Your task to perform on an android device: open the mobile data screen to see how much data has been used Image 0: 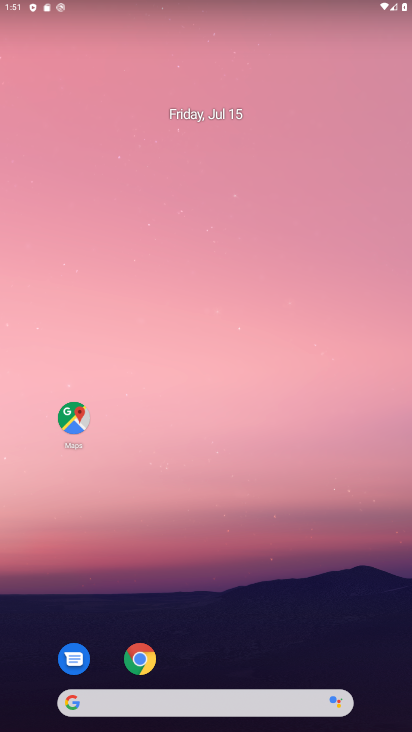
Step 0: drag from (186, 689) to (192, 244)
Your task to perform on an android device: open the mobile data screen to see how much data has been used Image 1: 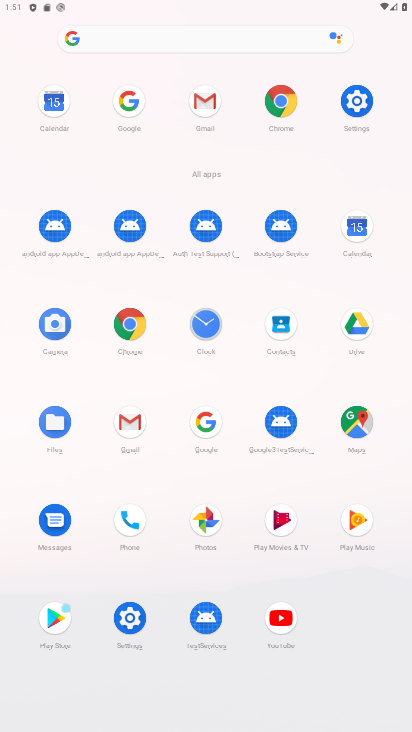
Step 1: click (348, 93)
Your task to perform on an android device: open the mobile data screen to see how much data has been used Image 2: 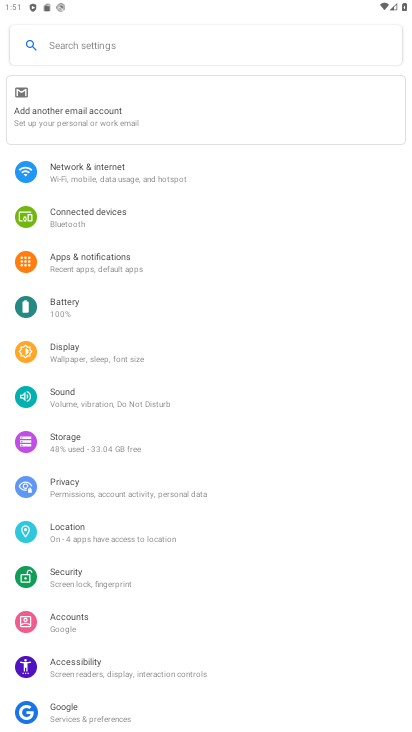
Step 2: click (109, 176)
Your task to perform on an android device: open the mobile data screen to see how much data has been used Image 3: 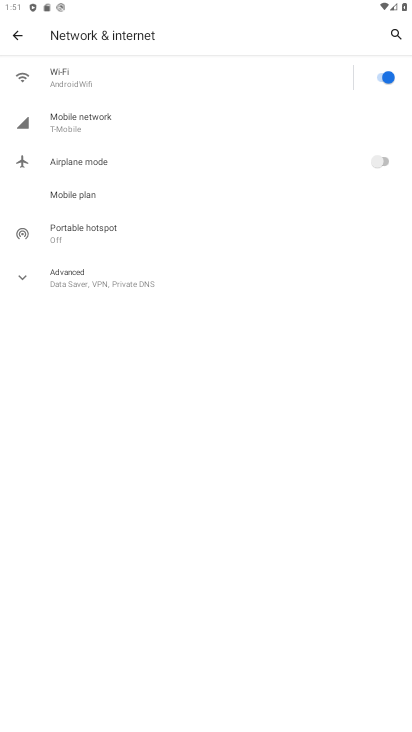
Step 3: click (93, 127)
Your task to perform on an android device: open the mobile data screen to see how much data has been used Image 4: 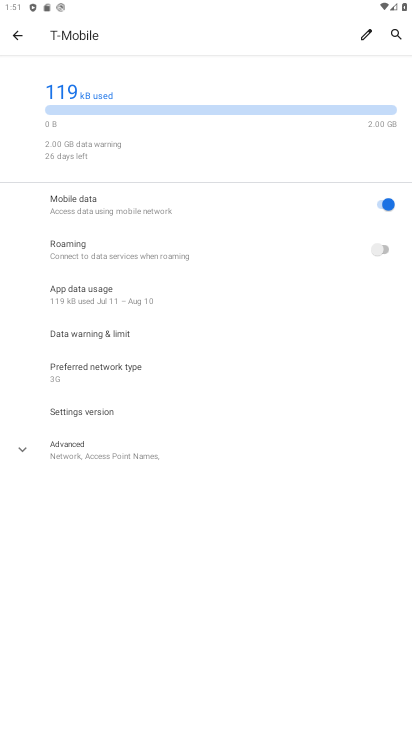
Step 4: task complete